Your task to perform on an android device: empty trash in google photos Image 0: 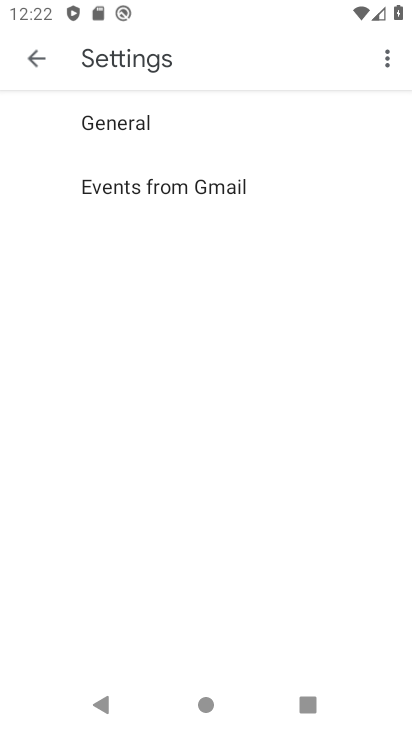
Step 0: press home button
Your task to perform on an android device: empty trash in google photos Image 1: 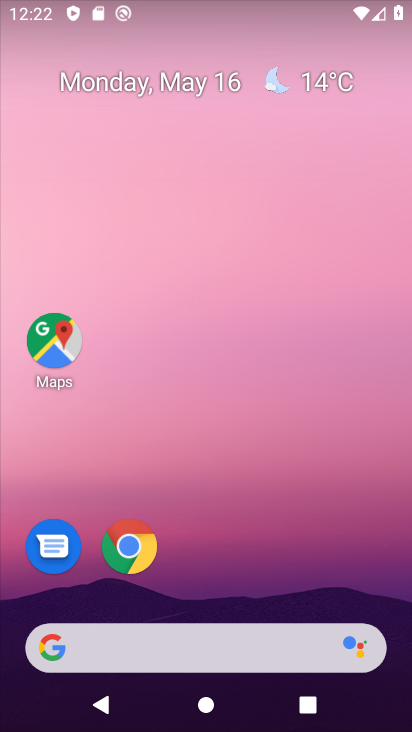
Step 1: drag from (212, 629) to (256, 101)
Your task to perform on an android device: empty trash in google photos Image 2: 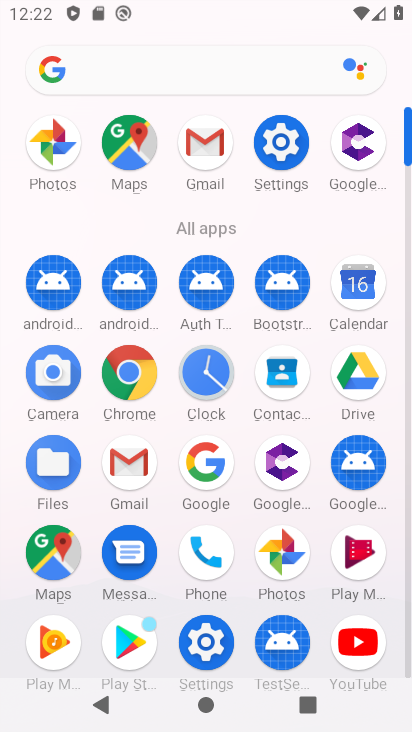
Step 2: click (290, 536)
Your task to perform on an android device: empty trash in google photos Image 3: 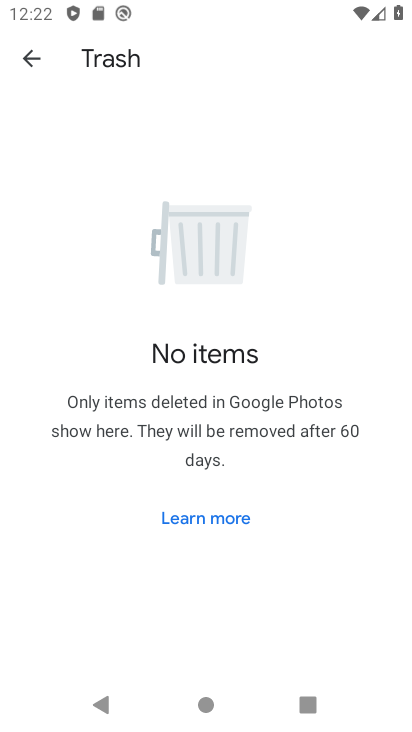
Step 3: task complete